Your task to perform on an android device: uninstall "WhatsApp Messenger" Image 0: 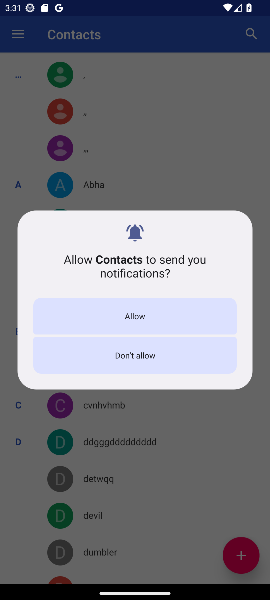
Step 0: press home button
Your task to perform on an android device: uninstall "WhatsApp Messenger" Image 1: 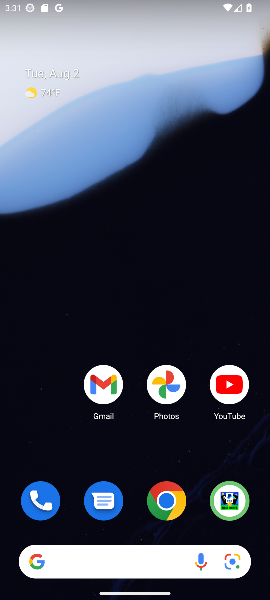
Step 1: drag from (146, 450) to (135, 61)
Your task to perform on an android device: uninstall "WhatsApp Messenger" Image 2: 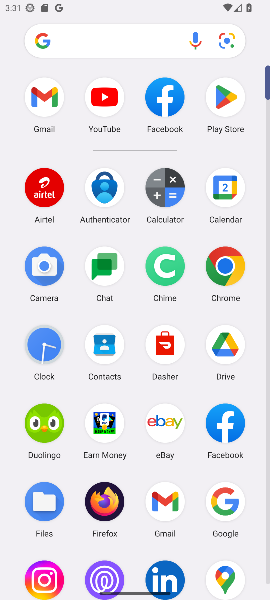
Step 2: click (219, 109)
Your task to perform on an android device: uninstall "WhatsApp Messenger" Image 3: 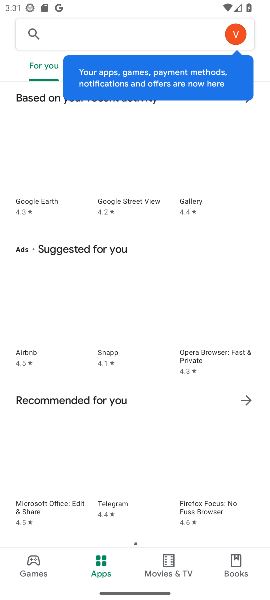
Step 3: click (109, 31)
Your task to perform on an android device: uninstall "WhatsApp Messenger" Image 4: 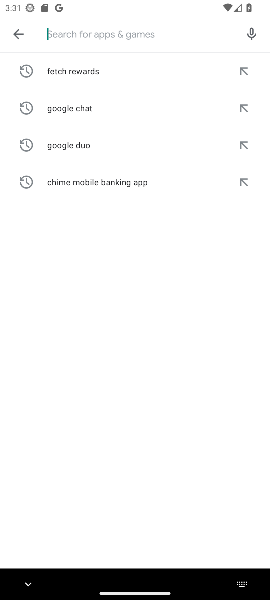
Step 4: type "WhatsApp Messenger"
Your task to perform on an android device: uninstall "WhatsApp Messenger" Image 5: 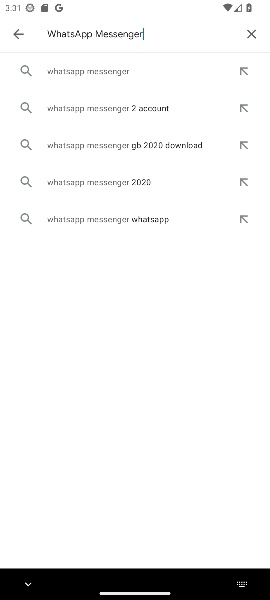
Step 5: click (99, 74)
Your task to perform on an android device: uninstall "WhatsApp Messenger" Image 6: 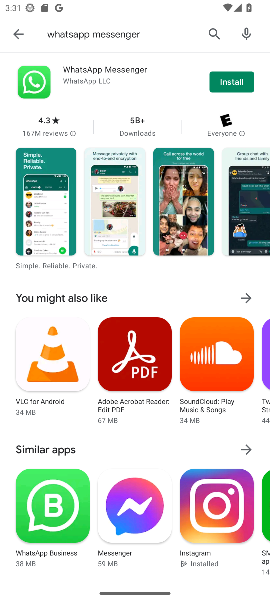
Step 6: task complete